Your task to perform on an android device: stop showing notifications on the lock screen Image 0: 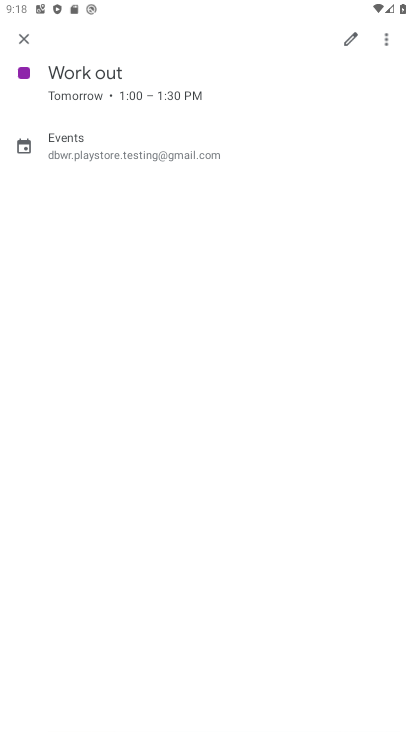
Step 0: press home button
Your task to perform on an android device: stop showing notifications on the lock screen Image 1: 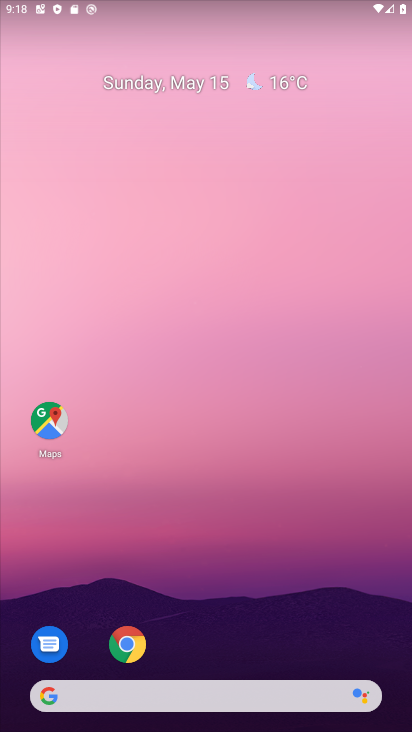
Step 1: drag from (165, 672) to (206, 214)
Your task to perform on an android device: stop showing notifications on the lock screen Image 2: 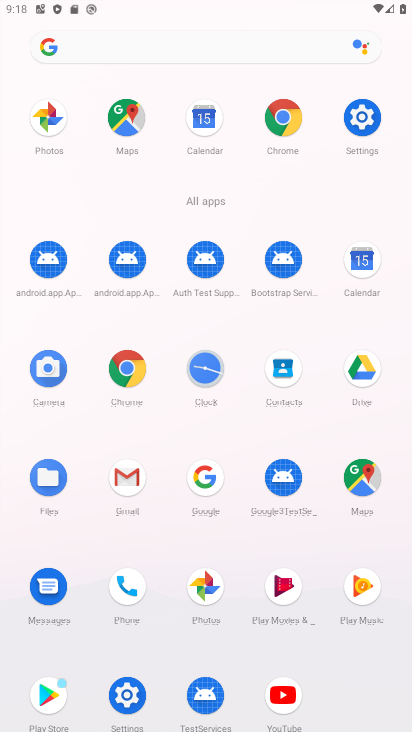
Step 2: click (361, 127)
Your task to perform on an android device: stop showing notifications on the lock screen Image 3: 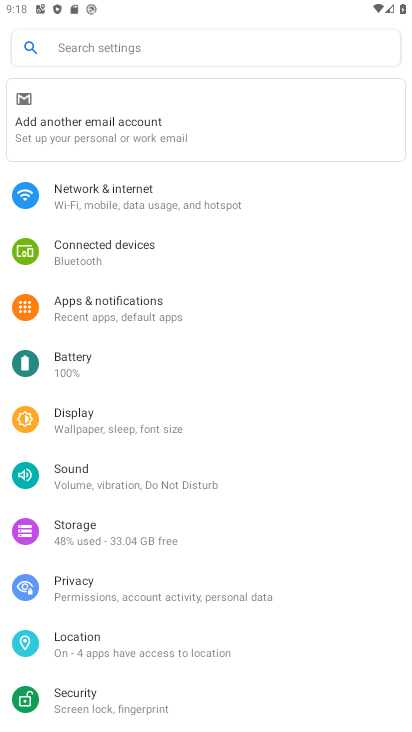
Step 3: click (109, 595)
Your task to perform on an android device: stop showing notifications on the lock screen Image 4: 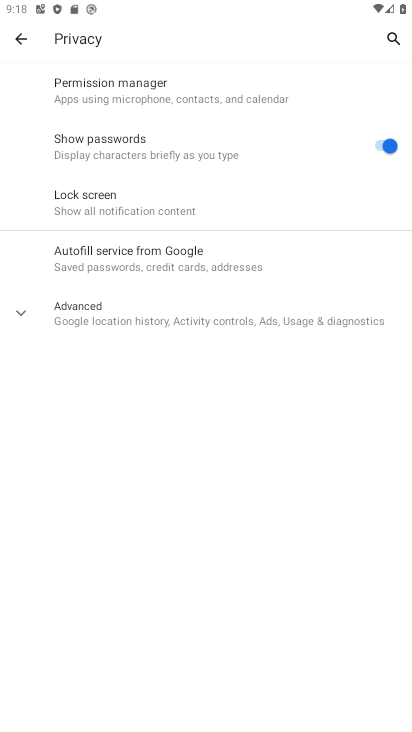
Step 4: click (165, 319)
Your task to perform on an android device: stop showing notifications on the lock screen Image 5: 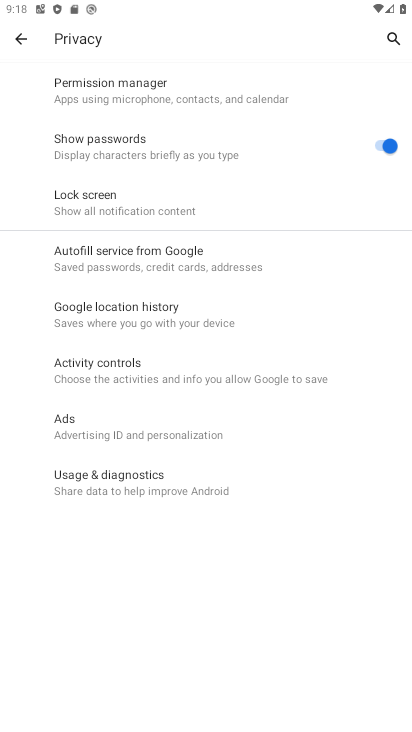
Step 5: click (107, 203)
Your task to perform on an android device: stop showing notifications on the lock screen Image 6: 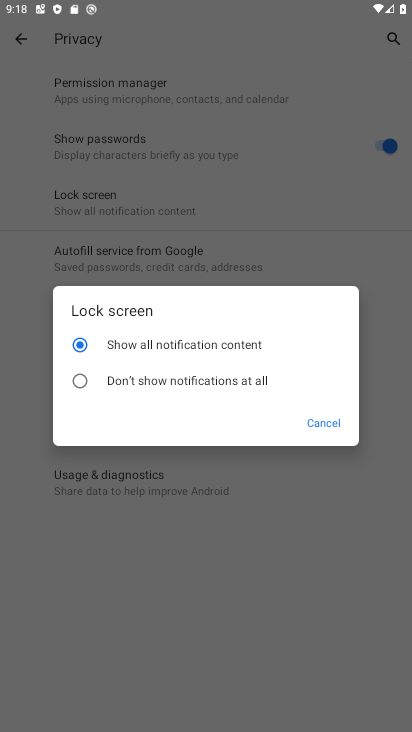
Step 6: click (154, 380)
Your task to perform on an android device: stop showing notifications on the lock screen Image 7: 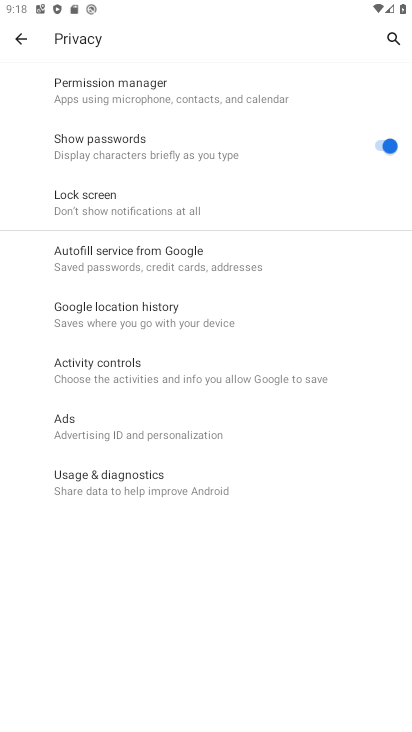
Step 7: task complete